Your task to perform on an android device: Go to settings Image 0: 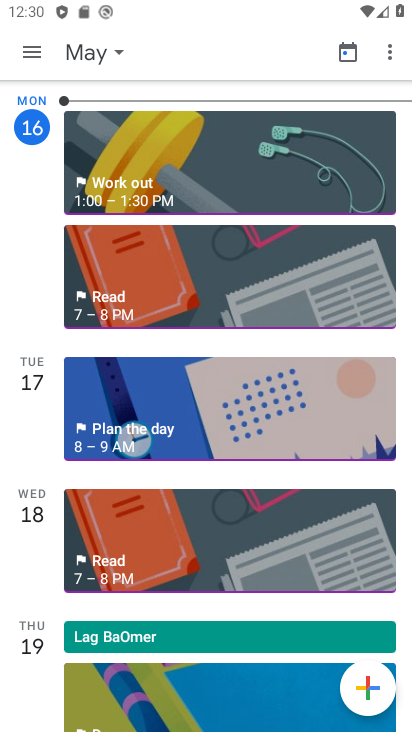
Step 0: press home button
Your task to perform on an android device: Go to settings Image 1: 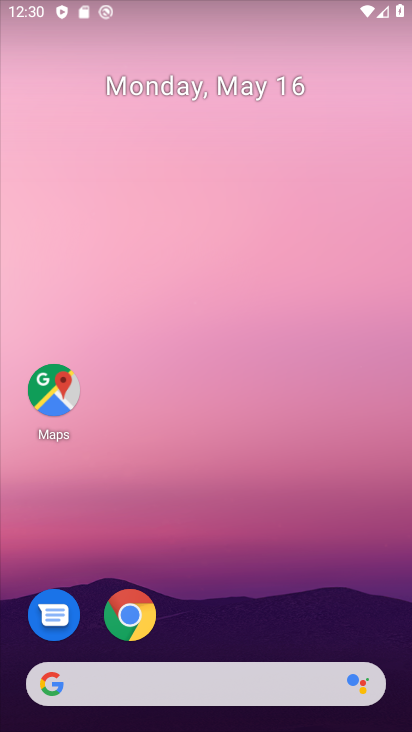
Step 1: drag from (313, 592) to (322, 178)
Your task to perform on an android device: Go to settings Image 2: 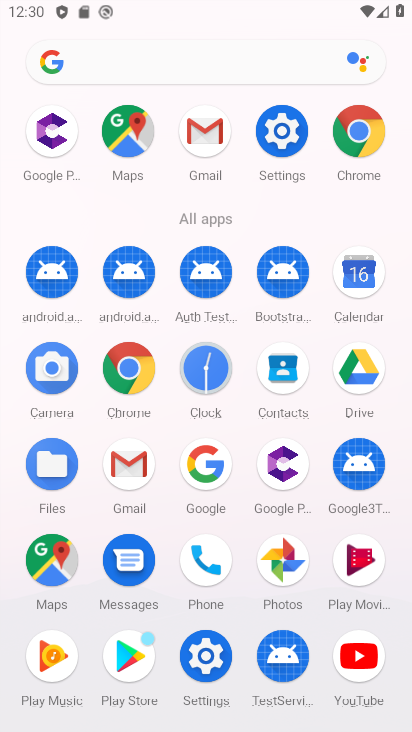
Step 2: click (293, 134)
Your task to perform on an android device: Go to settings Image 3: 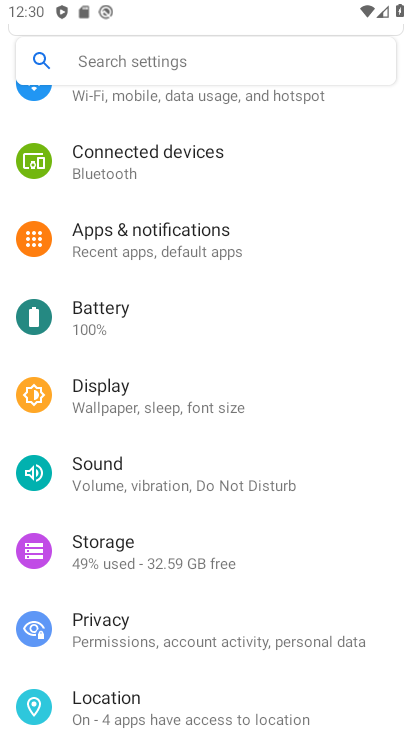
Step 3: task complete